Your task to perform on an android device: turn on priority inbox in the gmail app Image 0: 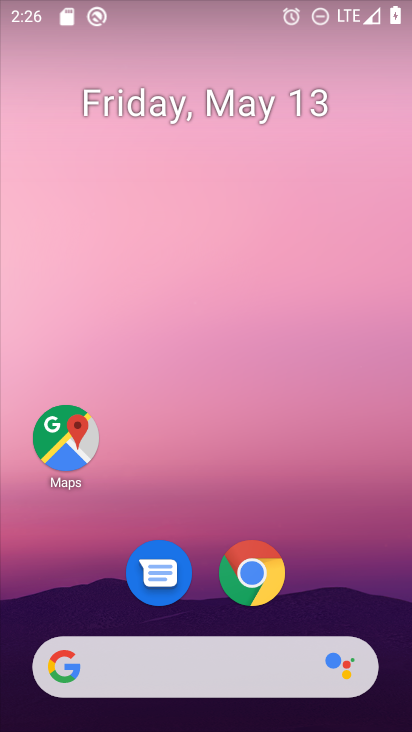
Step 0: drag from (178, 720) to (180, 40)
Your task to perform on an android device: turn on priority inbox in the gmail app Image 1: 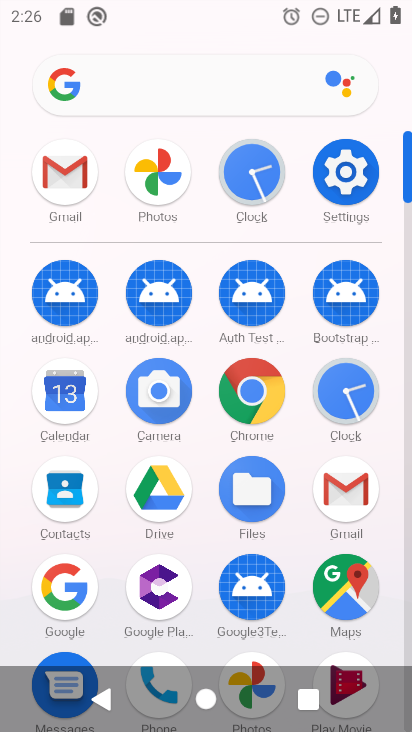
Step 1: click (48, 177)
Your task to perform on an android device: turn on priority inbox in the gmail app Image 2: 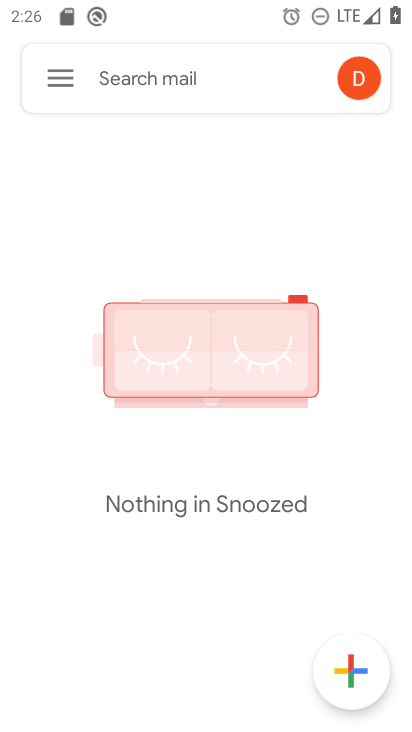
Step 2: click (61, 84)
Your task to perform on an android device: turn on priority inbox in the gmail app Image 3: 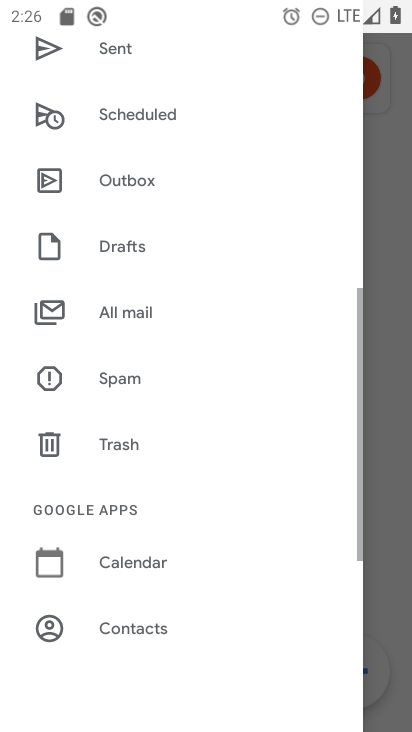
Step 3: drag from (166, 618) to (114, 83)
Your task to perform on an android device: turn on priority inbox in the gmail app Image 4: 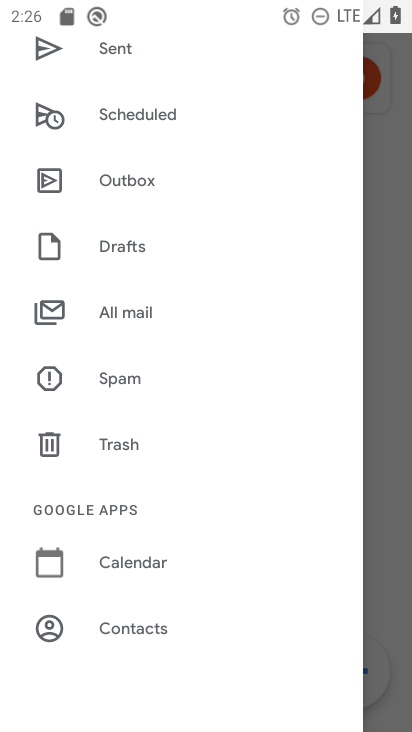
Step 4: drag from (103, 613) to (141, 13)
Your task to perform on an android device: turn on priority inbox in the gmail app Image 5: 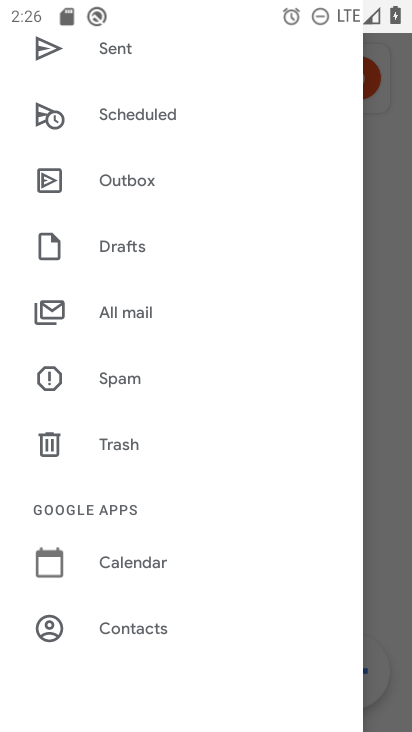
Step 5: drag from (162, 583) to (90, 15)
Your task to perform on an android device: turn on priority inbox in the gmail app Image 6: 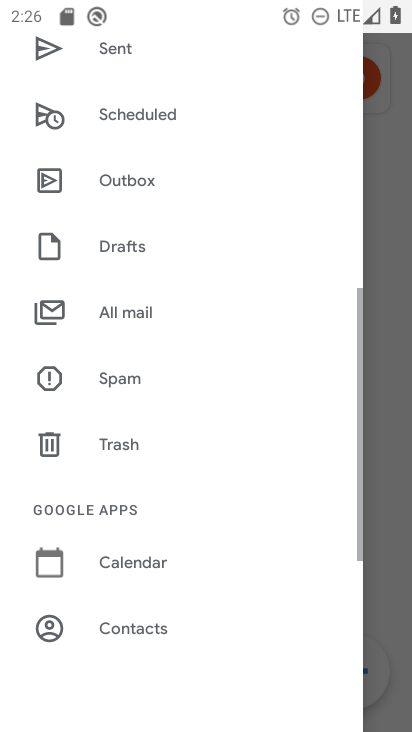
Step 6: drag from (149, 586) to (80, 18)
Your task to perform on an android device: turn on priority inbox in the gmail app Image 7: 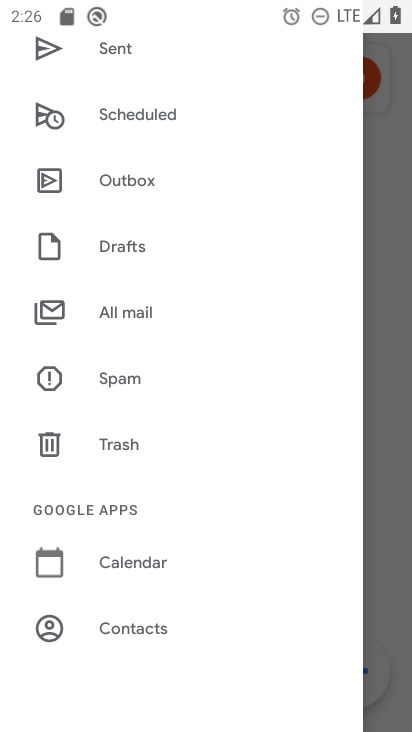
Step 7: drag from (95, 622) to (165, 0)
Your task to perform on an android device: turn on priority inbox in the gmail app Image 8: 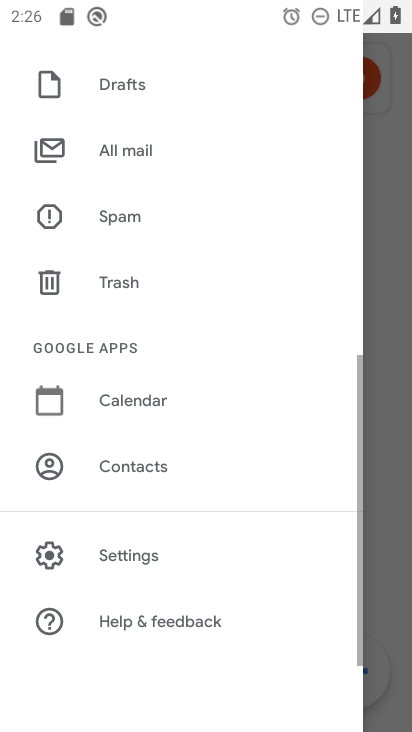
Step 8: click (126, 552)
Your task to perform on an android device: turn on priority inbox in the gmail app Image 9: 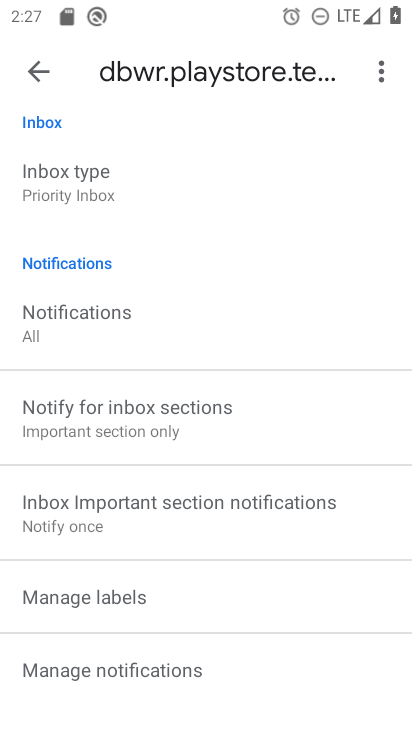
Step 9: click (62, 177)
Your task to perform on an android device: turn on priority inbox in the gmail app Image 10: 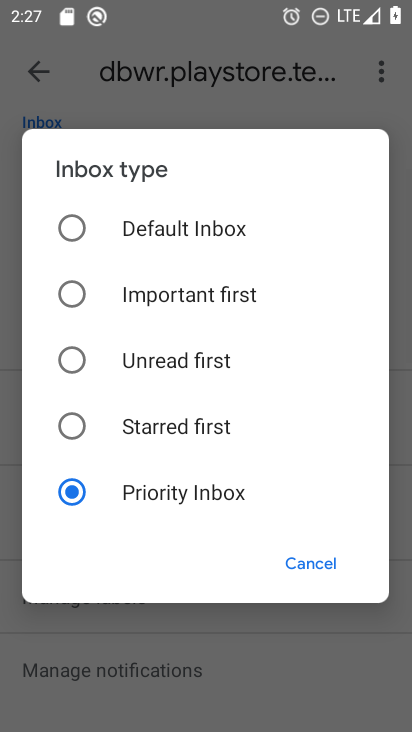
Step 10: task complete